Your task to perform on an android device: toggle pop-ups in chrome Image 0: 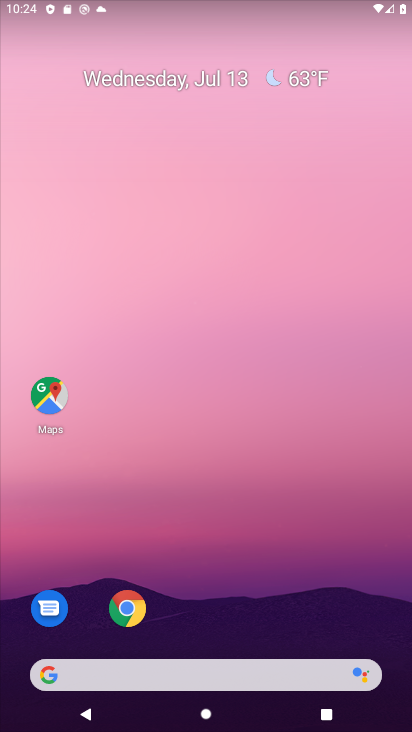
Step 0: click (124, 610)
Your task to perform on an android device: toggle pop-ups in chrome Image 1: 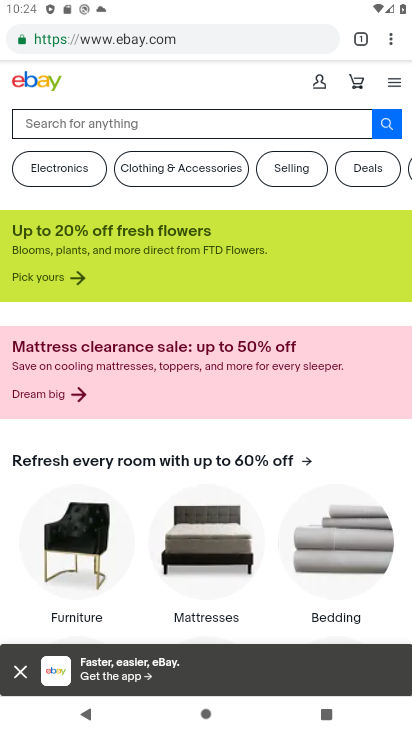
Step 1: drag from (382, 39) to (293, 457)
Your task to perform on an android device: toggle pop-ups in chrome Image 2: 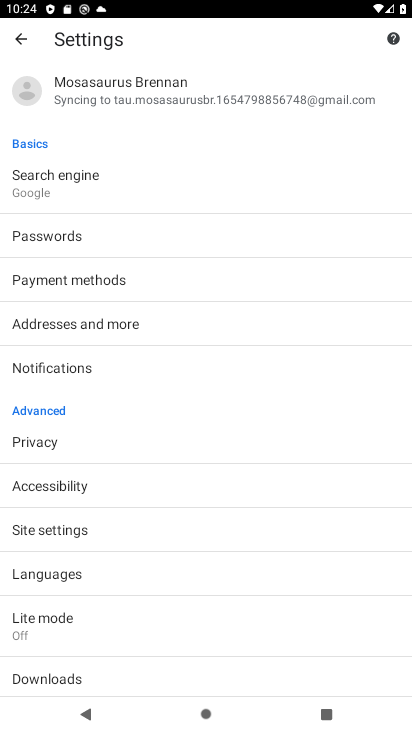
Step 2: click (98, 533)
Your task to perform on an android device: toggle pop-ups in chrome Image 3: 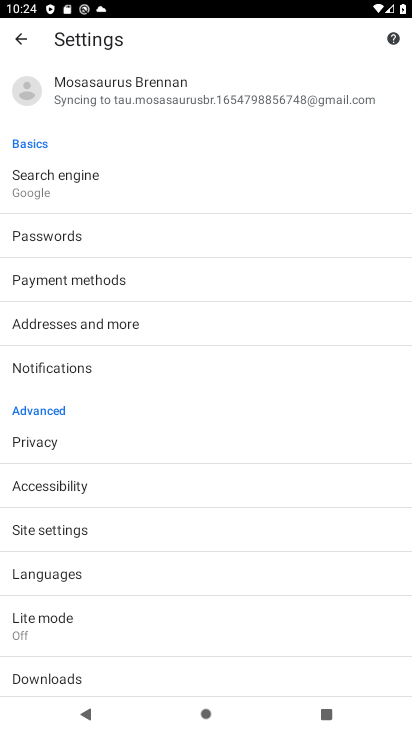
Step 3: click (104, 535)
Your task to perform on an android device: toggle pop-ups in chrome Image 4: 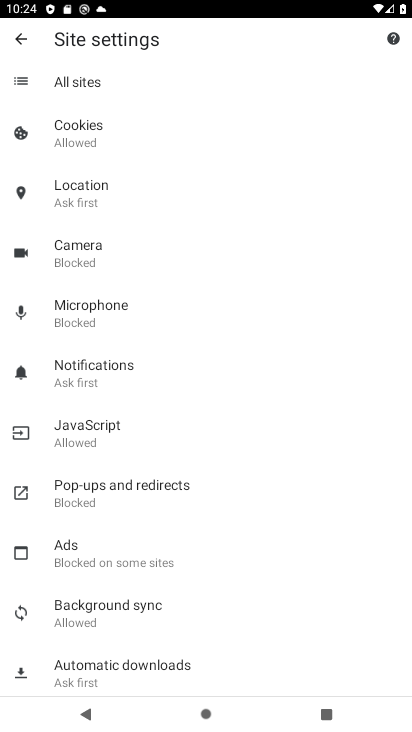
Step 4: click (108, 476)
Your task to perform on an android device: toggle pop-ups in chrome Image 5: 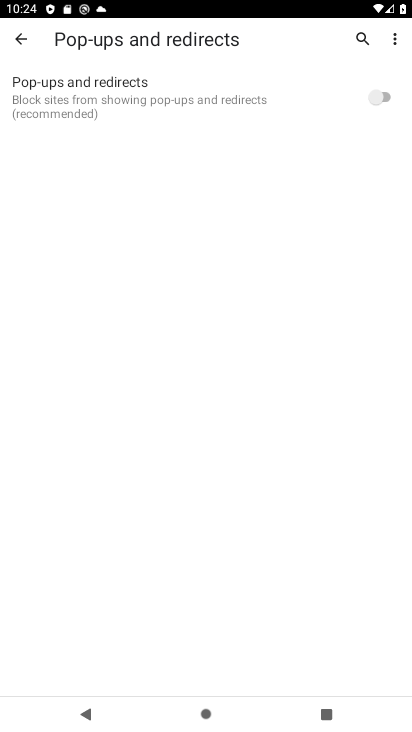
Step 5: click (391, 95)
Your task to perform on an android device: toggle pop-ups in chrome Image 6: 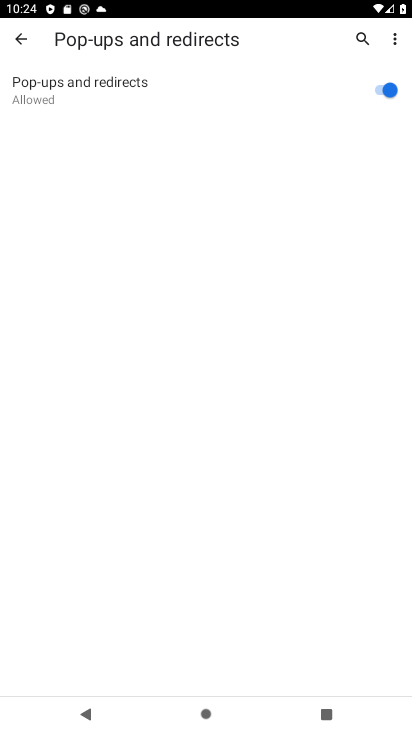
Step 6: task complete